Your task to perform on an android device: Open Google Maps and go to "Timeline" Image 0: 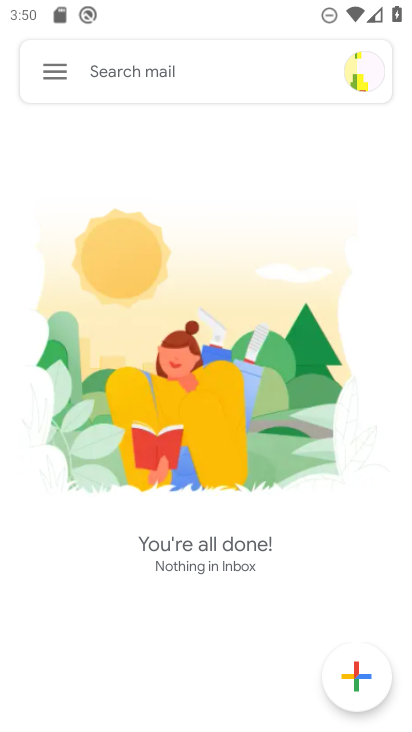
Step 0: press home button
Your task to perform on an android device: Open Google Maps and go to "Timeline" Image 1: 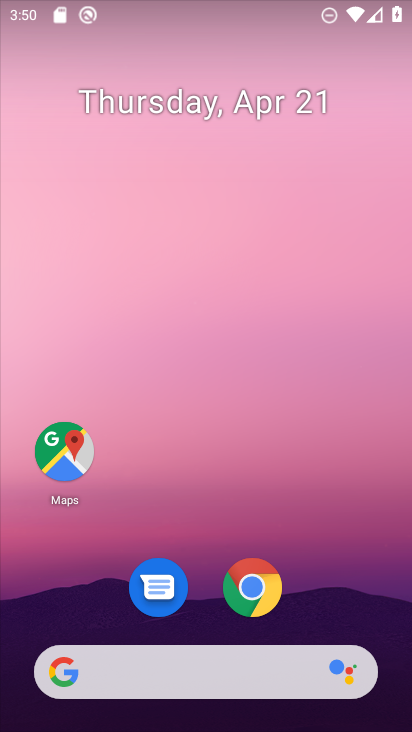
Step 1: click (59, 452)
Your task to perform on an android device: Open Google Maps and go to "Timeline" Image 2: 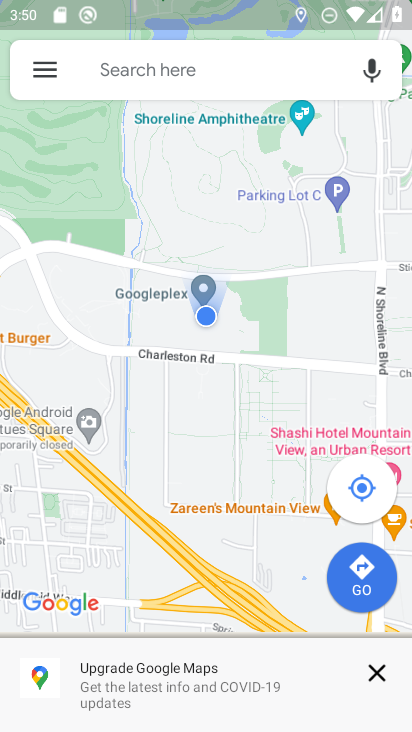
Step 2: click (47, 72)
Your task to perform on an android device: Open Google Maps and go to "Timeline" Image 3: 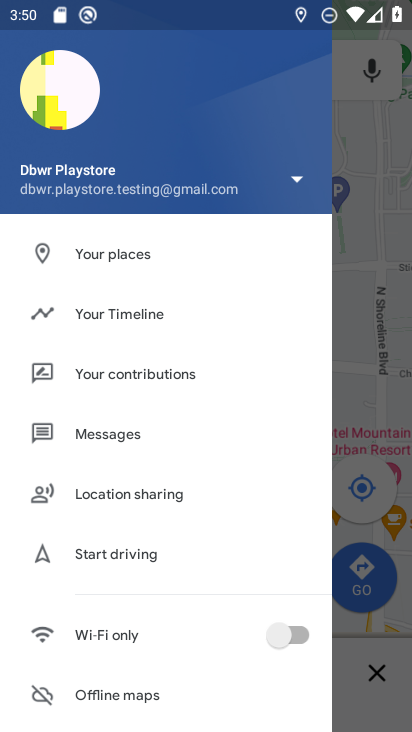
Step 3: click (107, 317)
Your task to perform on an android device: Open Google Maps and go to "Timeline" Image 4: 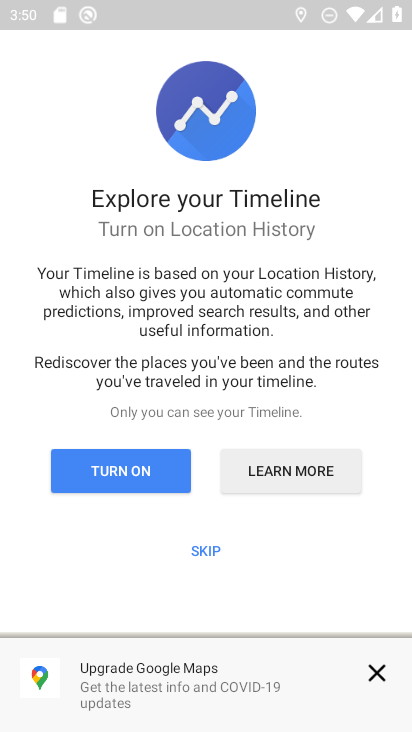
Step 4: click (195, 547)
Your task to perform on an android device: Open Google Maps and go to "Timeline" Image 5: 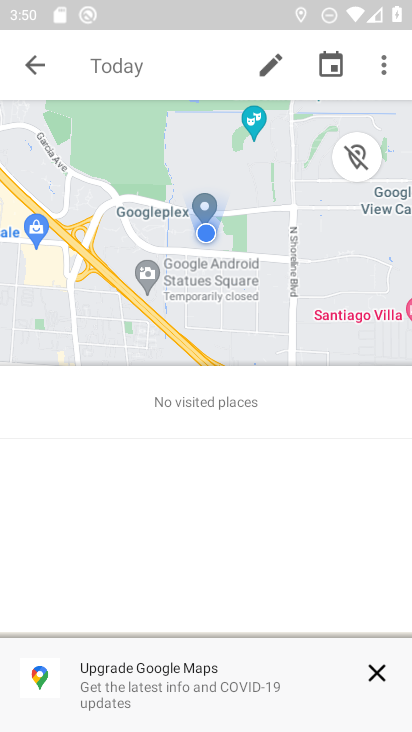
Step 5: task complete